Your task to perform on an android device: Open maps Image 0: 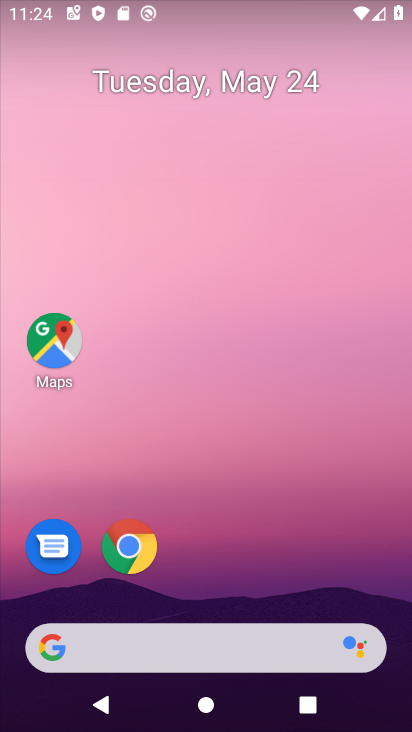
Step 0: click (46, 323)
Your task to perform on an android device: Open maps Image 1: 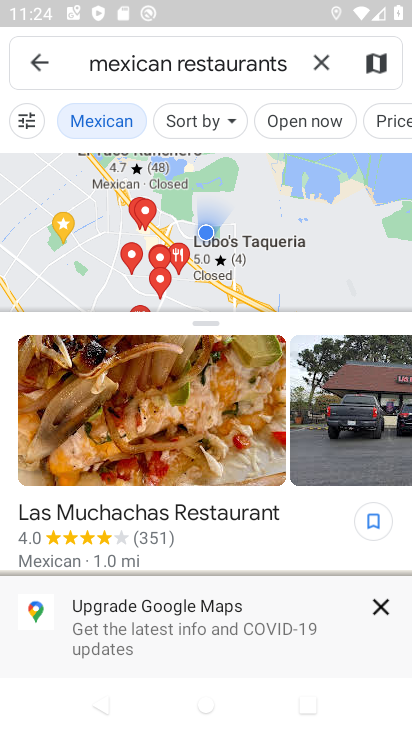
Step 1: task complete